Your task to perform on an android device: Open the web browser Image 0: 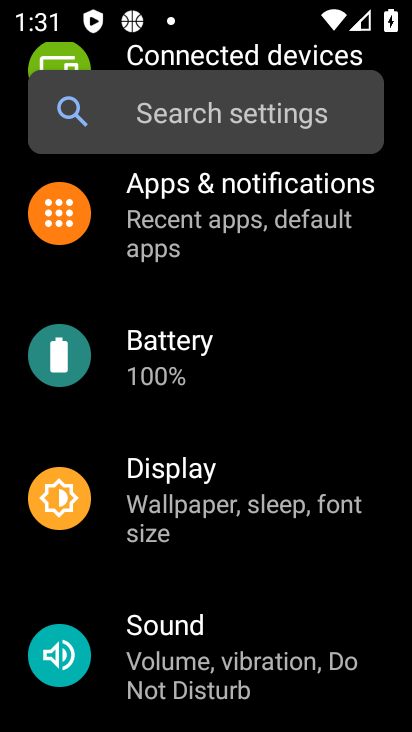
Step 0: press back button
Your task to perform on an android device: Open the web browser Image 1: 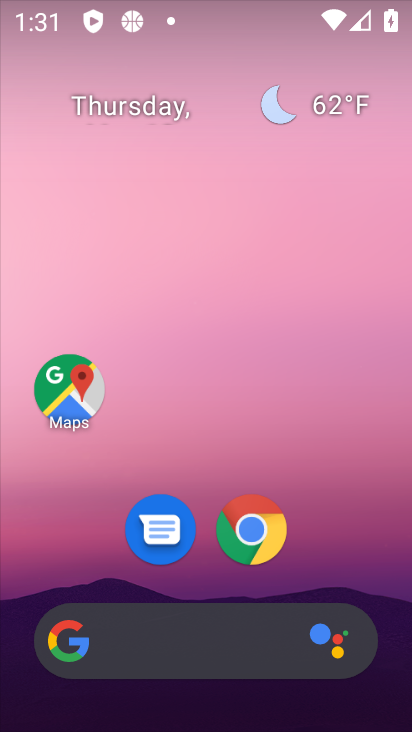
Step 1: click (250, 529)
Your task to perform on an android device: Open the web browser Image 2: 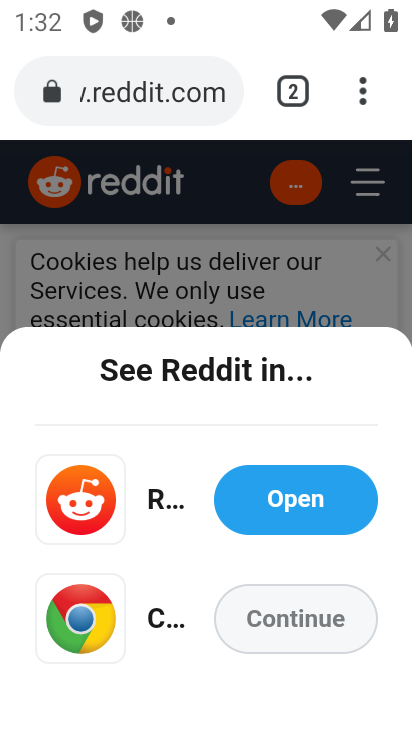
Step 2: task complete